Your task to perform on an android device: Set the phone to "Do not disturb". Image 0: 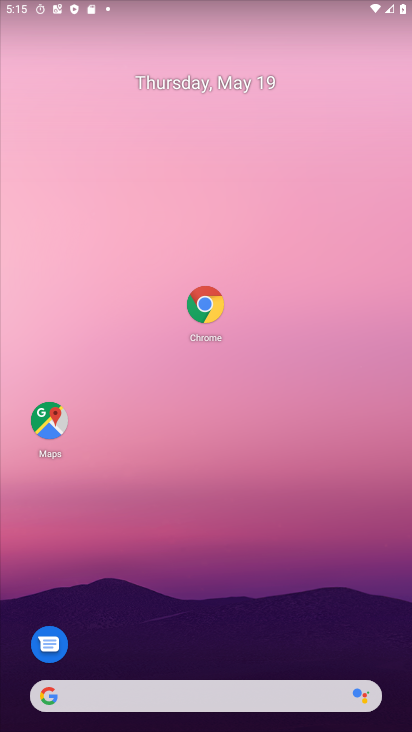
Step 0: drag from (180, 677) to (242, 264)
Your task to perform on an android device: Set the phone to "Do not disturb". Image 1: 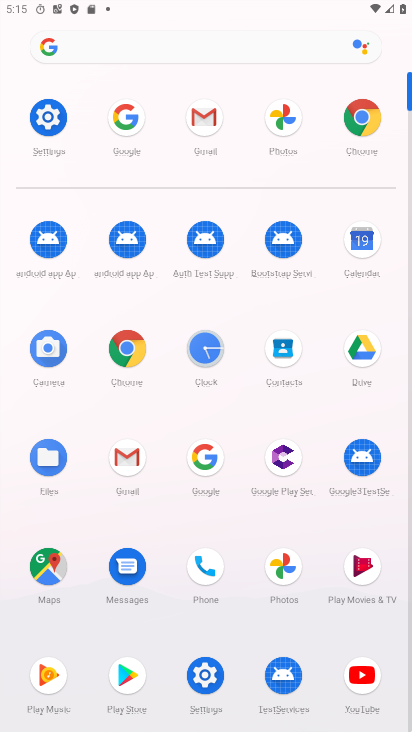
Step 1: click (52, 120)
Your task to perform on an android device: Set the phone to "Do not disturb". Image 2: 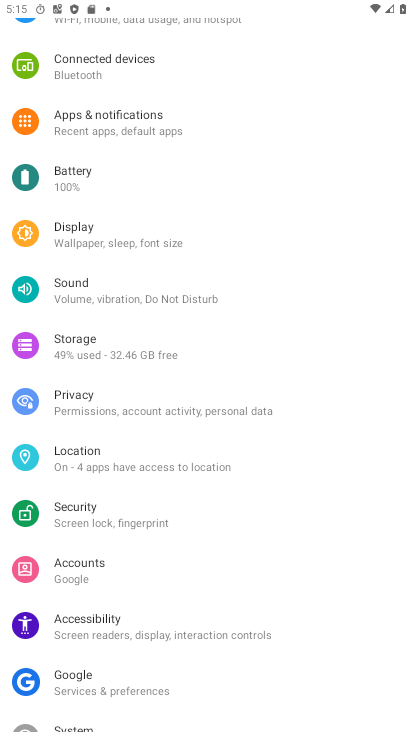
Step 2: click (134, 291)
Your task to perform on an android device: Set the phone to "Do not disturb". Image 3: 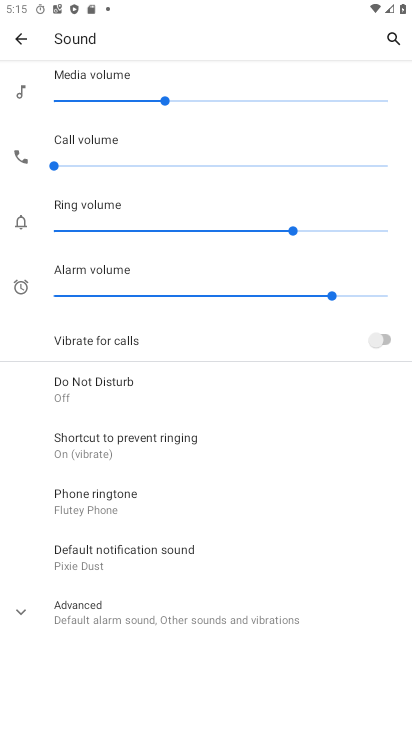
Step 3: click (85, 378)
Your task to perform on an android device: Set the phone to "Do not disturb". Image 4: 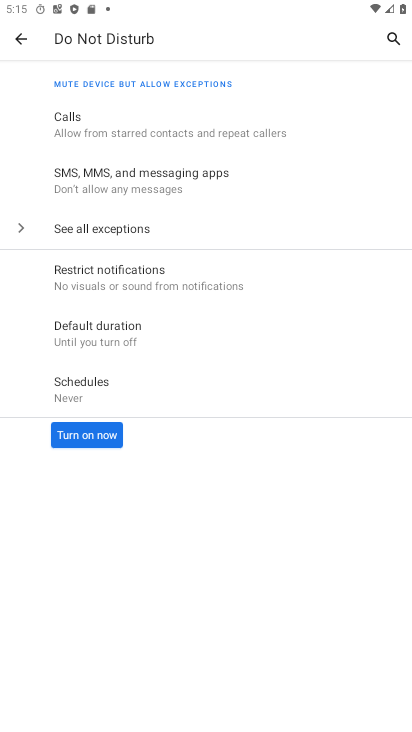
Step 4: click (89, 433)
Your task to perform on an android device: Set the phone to "Do not disturb". Image 5: 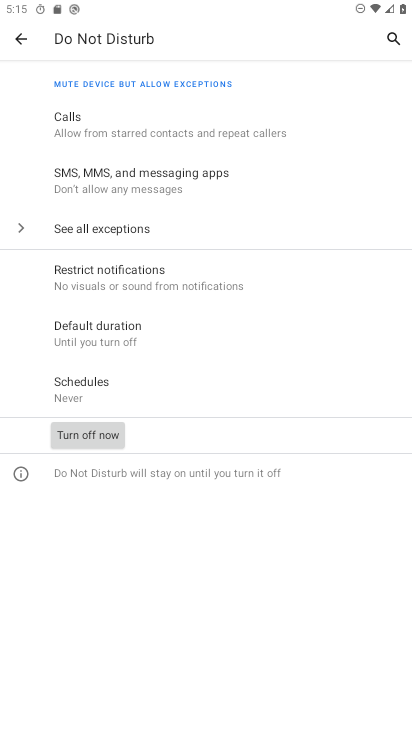
Step 5: task complete